Your task to perform on an android device: choose inbox layout in the gmail app Image 0: 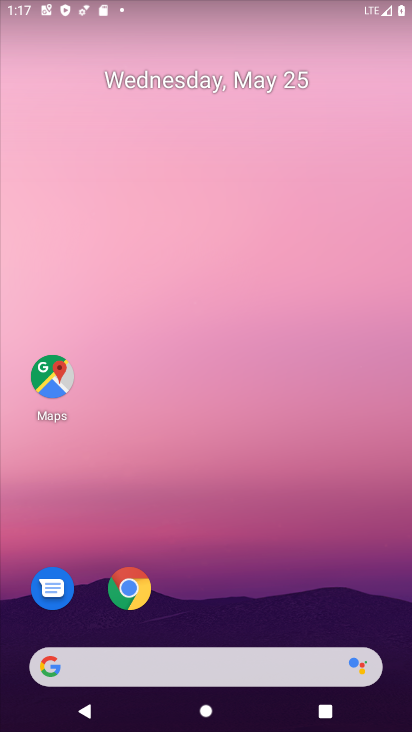
Step 0: drag from (310, 547) to (371, 64)
Your task to perform on an android device: choose inbox layout in the gmail app Image 1: 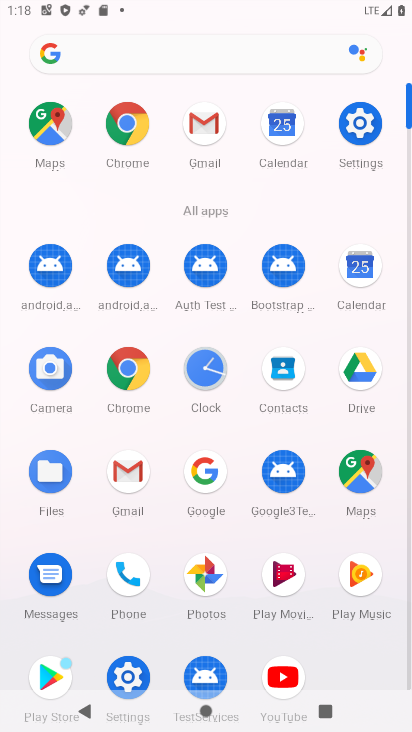
Step 1: click (201, 120)
Your task to perform on an android device: choose inbox layout in the gmail app Image 2: 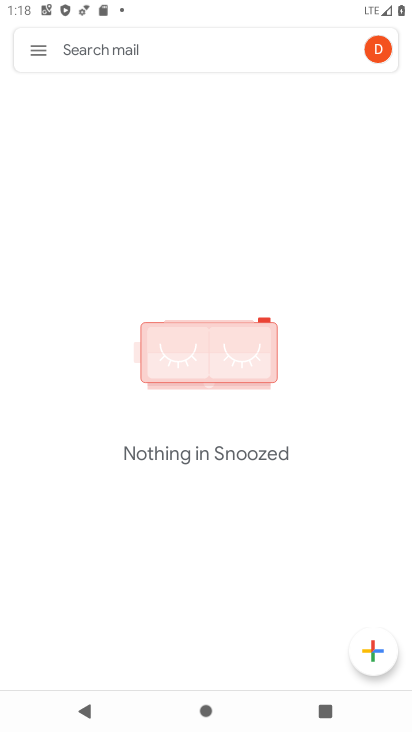
Step 2: click (35, 50)
Your task to perform on an android device: choose inbox layout in the gmail app Image 3: 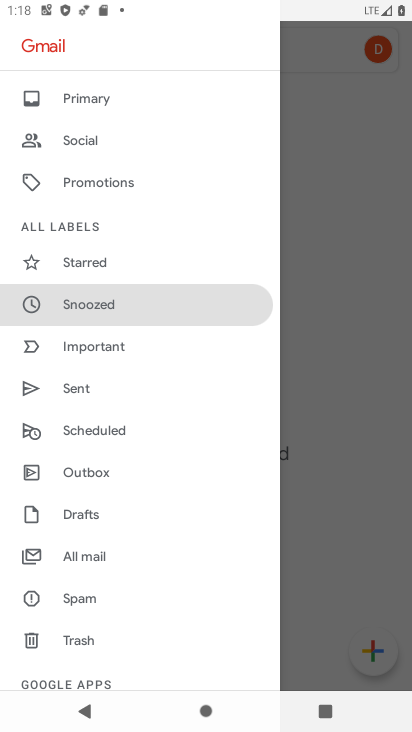
Step 3: drag from (135, 645) to (152, 136)
Your task to perform on an android device: choose inbox layout in the gmail app Image 4: 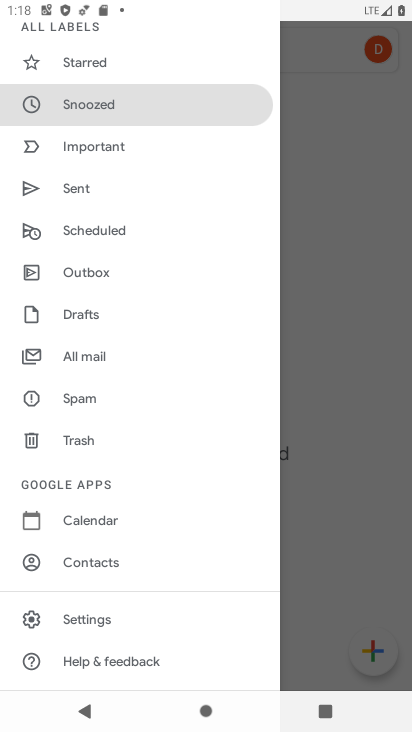
Step 4: click (75, 622)
Your task to perform on an android device: choose inbox layout in the gmail app Image 5: 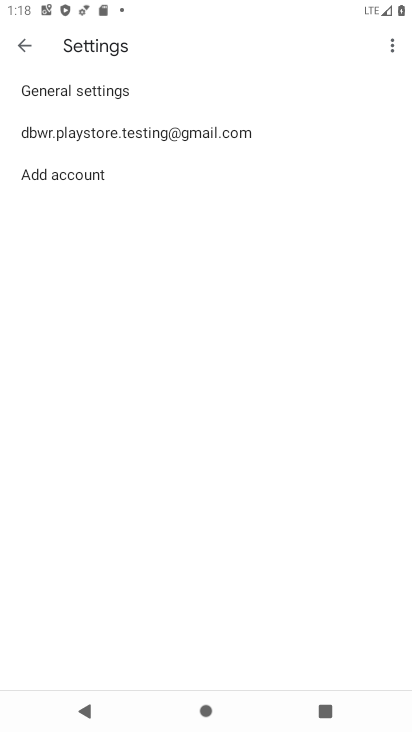
Step 5: click (109, 131)
Your task to perform on an android device: choose inbox layout in the gmail app Image 6: 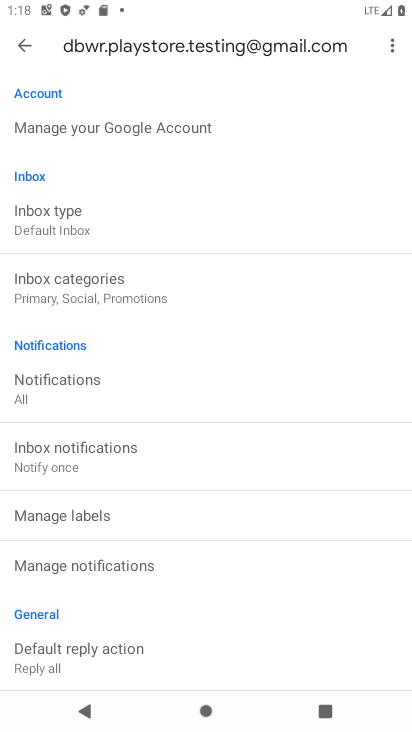
Step 6: click (31, 226)
Your task to perform on an android device: choose inbox layout in the gmail app Image 7: 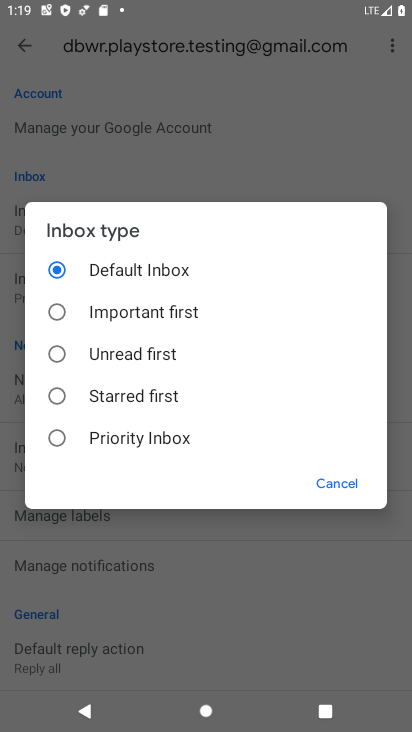
Step 7: click (65, 359)
Your task to perform on an android device: choose inbox layout in the gmail app Image 8: 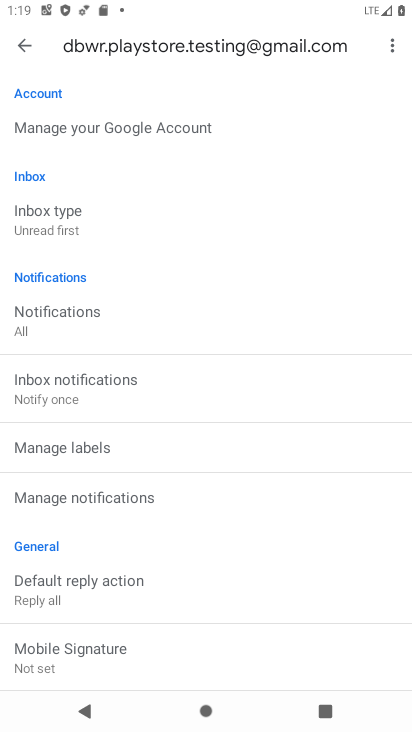
Step 8: task complete